Your task to perform on an android device: Open the web browser Image 0: 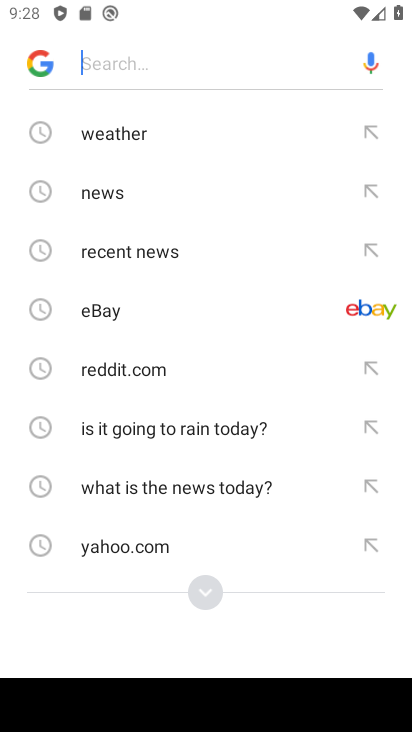
Step 0: press home button
Your task to perform on an android device: Open the web browser Image 1: 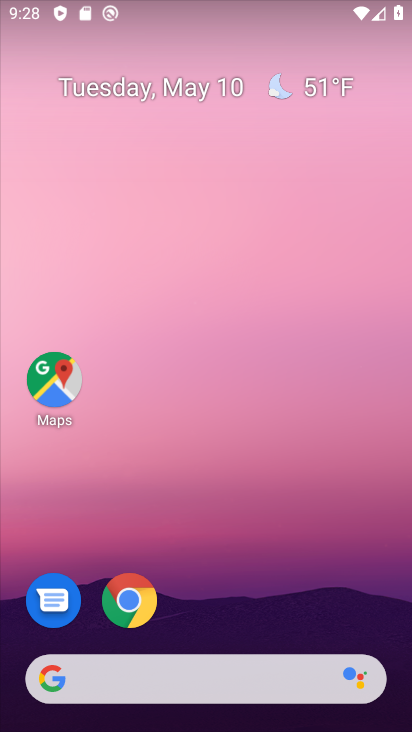
Step 1: click (128, 602)
Your task to perform on an android device: Open the web browser Image 2: 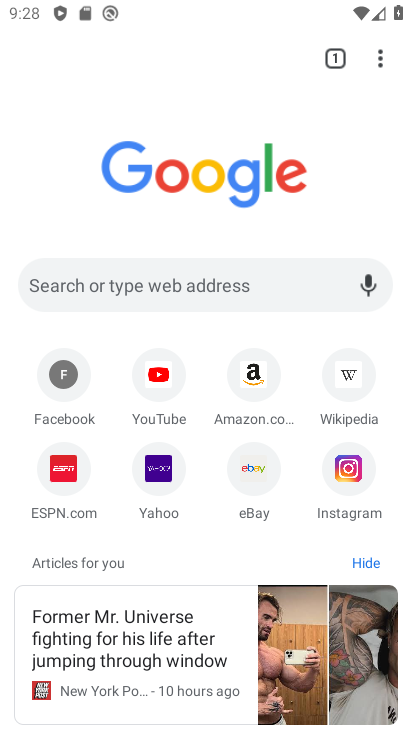
Step 2: task complete